Your task to perform on an android device: Toggle the flashlight Image 0: 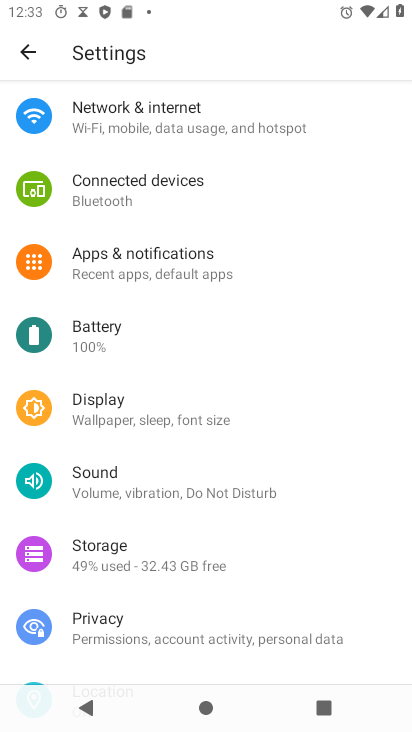
Step 0: press home button
Your task to perform on an android device: Toggle the flashlight Image 1: 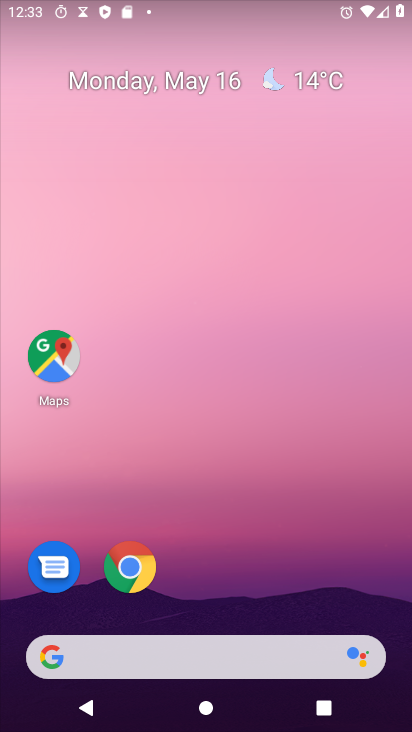
Step 1: drag from (248, 614) to (262, 88)
Your task to perform on an android device: Toggle the flashlight Image 2: 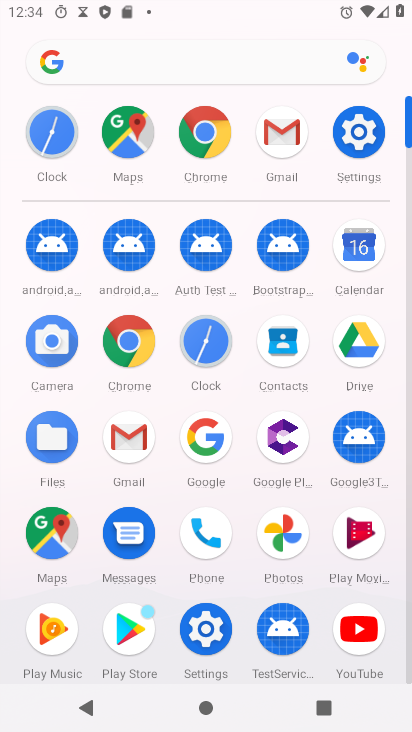
Step 2: click (349, 133)
Your task to perform on an android device: Toggle the flashlight Image 3: 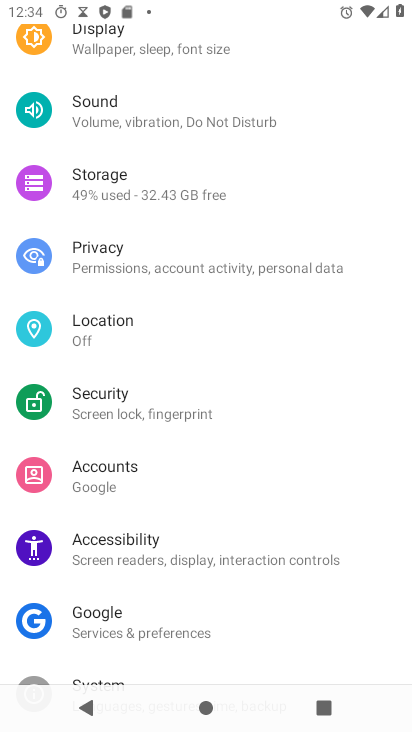
Step 3: task complete